Your task to perform on an android device: What's the weather going to be tomorrow? Image 0: 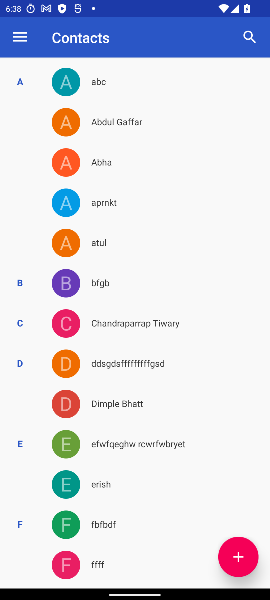
Step 0: press home button
Your task to perform on an android device: What's the weather going to be tomorrow? Image 1: 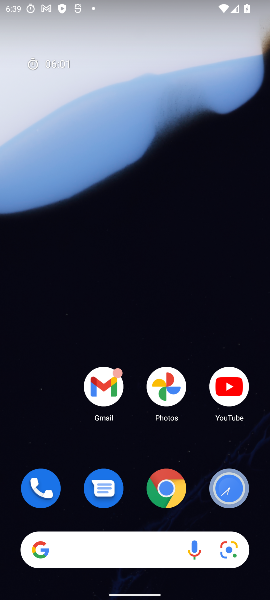
Step 1: drag from (91, 582) to (107, 108)
Your task to perform on an android device: What's the weather going to be tomorrow? Image 2: 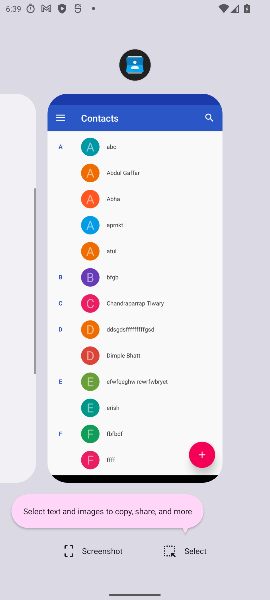
Step 2: press back button
Your task to perform on an android device: What's the weather going to be tomorrow? Image 3: 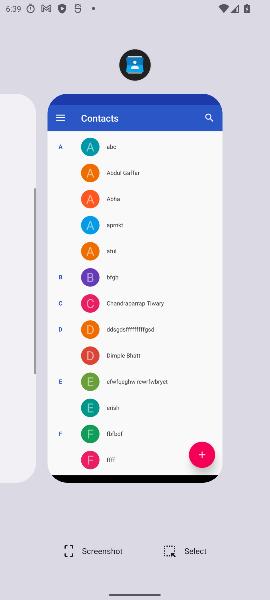
Step 3: press back button
Your task to perform on an android device: What's the weather going to be tomorrow? Image 4: 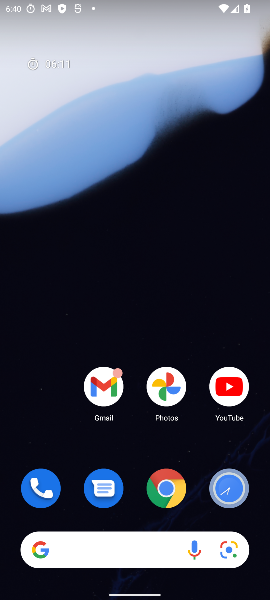
Step 4: drag from (182, 553) to (127, 145)
Your task to perform on an android device: What's the weather going to be tomorrow? Image 5: 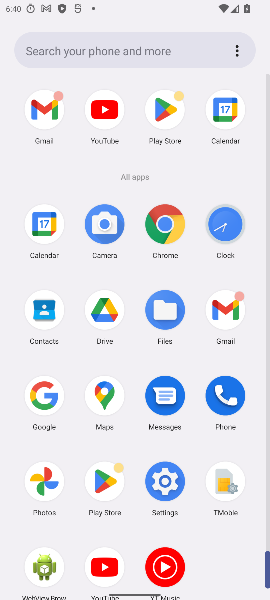
Step 5: click (47, 402)
Your task to perform on an android device: What's the weather going to be tomorrow? Image 6: 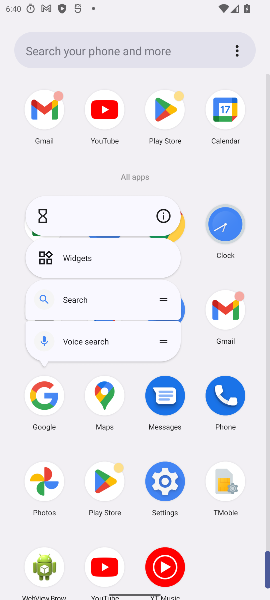
Step 6: click (45, 401)
Your task to perform on an android device: What's the weather going to be tomorrow? Image 7: 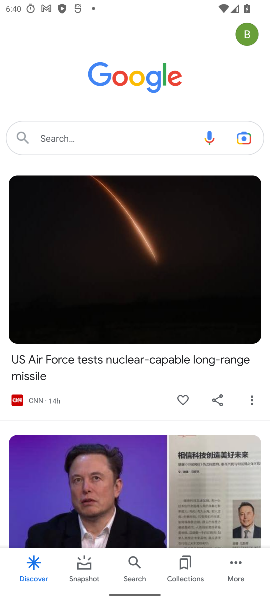
Step 7: click (68, 138)
Your task to perform on an android device: What's the weather going to be tomorrow? Image 8: 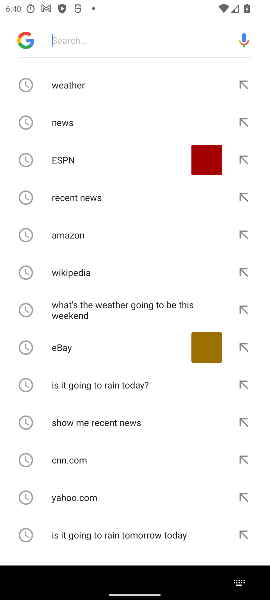
Step 8: press back button
Your task to perform on an android device: What's the weather going to be tomorrow? Image 9: 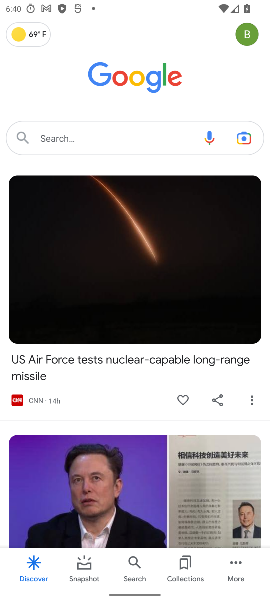
Step 9: click (36, 39)
Your task to perform on an android device: What's the weather going to be tomorrow? Image 10: 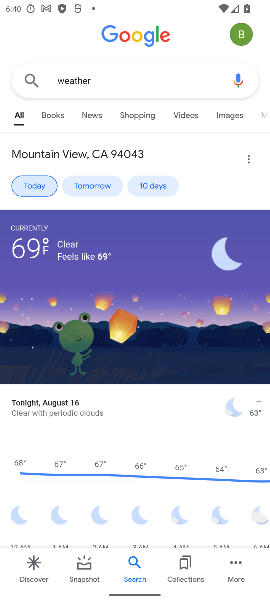
Step 10: click (96, 189)
Your task to perform on an android device: What's the weather going to be tomorrow? Image 11: 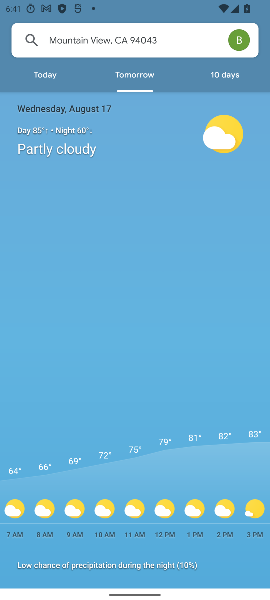
Step 11: task complete